Your task to perform on an android device: Search for vegetarian restaurants on Maps Image 0: 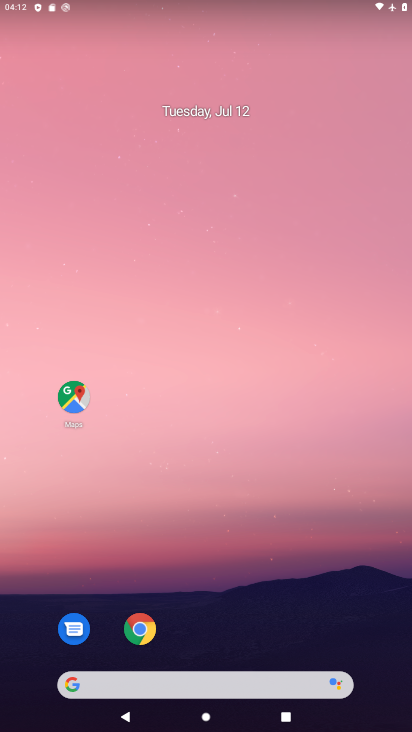
Step 0: drag from (306, 621) to (244, 114)
Your task to perform on an android device: Search for vegetarian restaurants on Maps Image 1: 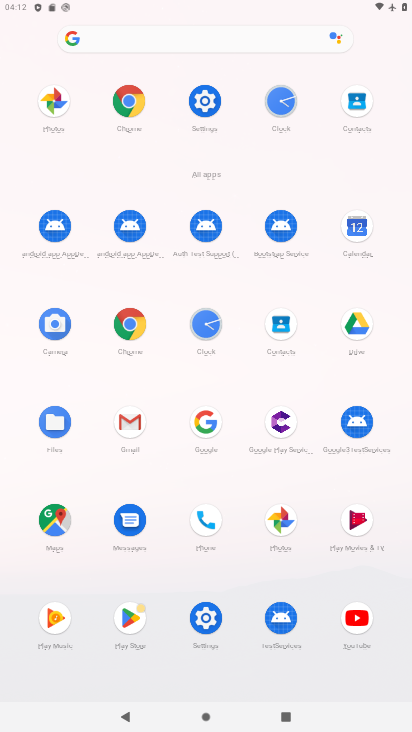
Step 1: click (53, 515)
Your task to perform on an android device: Search for vegetarian restaurants on Maps Image 2: 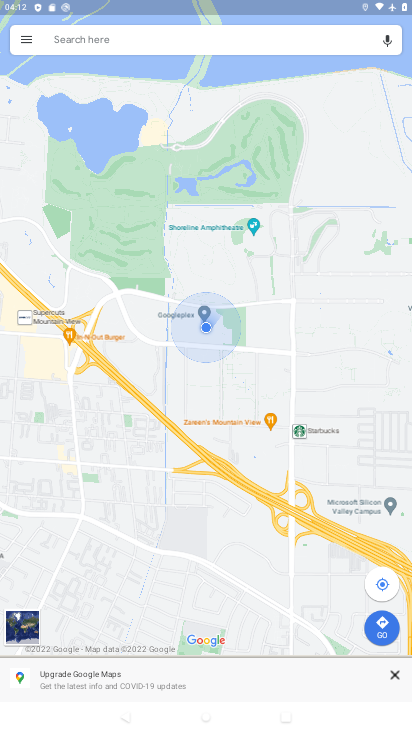
Step 2: click (228, 42)
Your task to perform on an android device: Search for vegetarian restaurants on Maps Image 3: 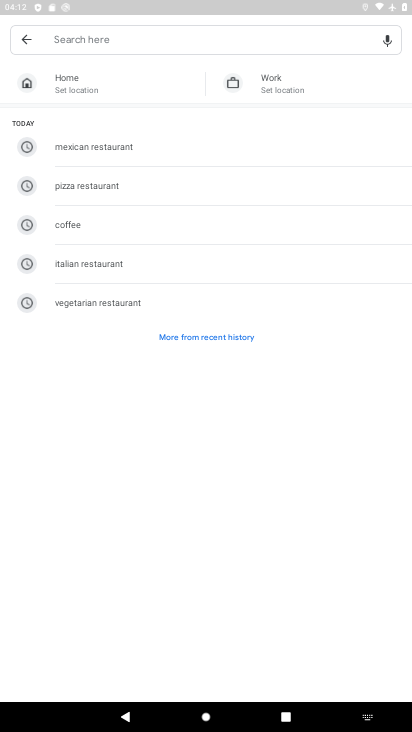
Step 3: type "vegetarian restaurants"
Your task to perform on an android device: Search for vegetarian restaurants on Maps Image 4: 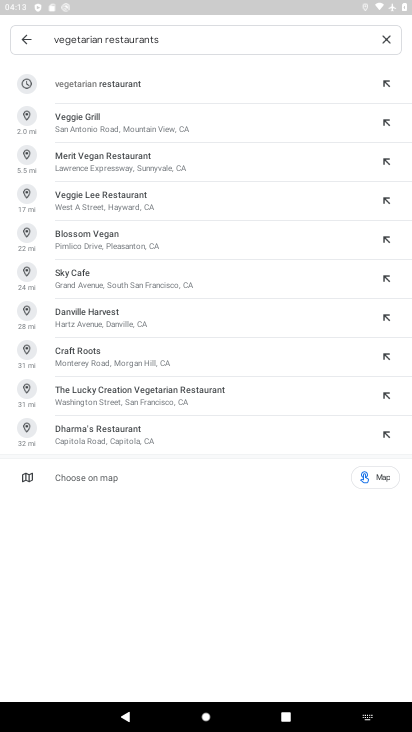
Step 4: press enter
Your task to perform on an android device: Search for vegetarian restaurants on Maps Image 5: 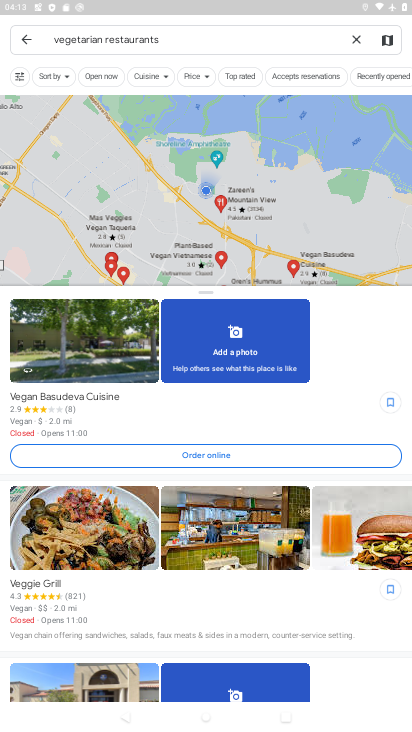
Step 5: task complete